Your task to perform on an android device: change your default location settings in chrome Image 0: 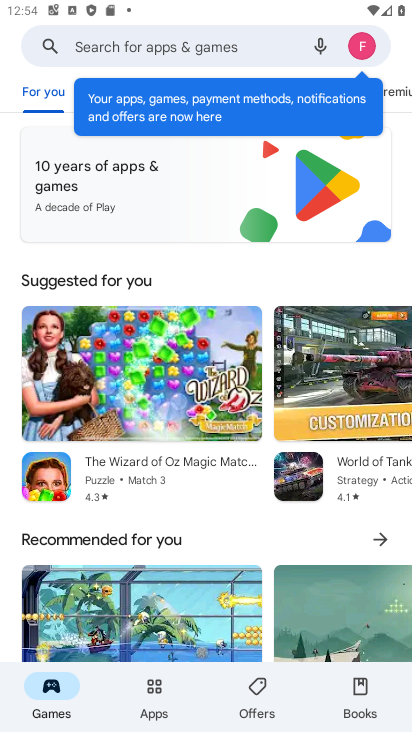
Step 0: press home button
Your task to perform on an android device: change your default location settings in chrome Image 1: 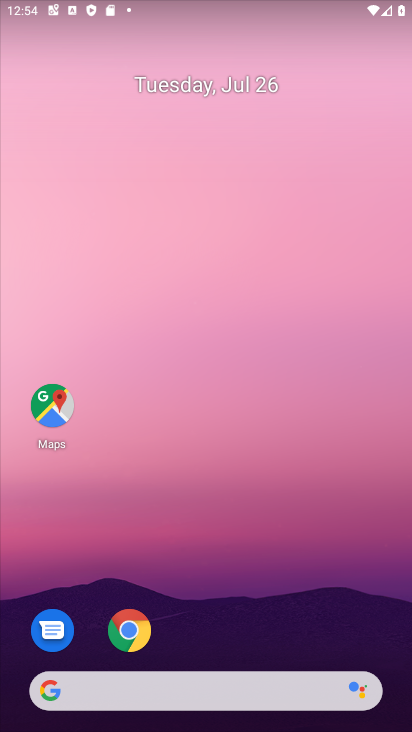
Step 1: click (132, 635)
Your task to perform on an android device: change your default location settings in chrome Image 2: 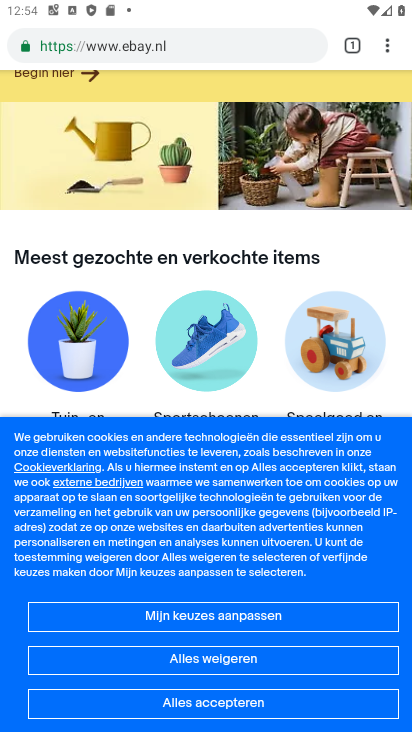
Step 2: click (385, 50)
Your task to perform on an android device: change your default location settings in chrome Image 3: 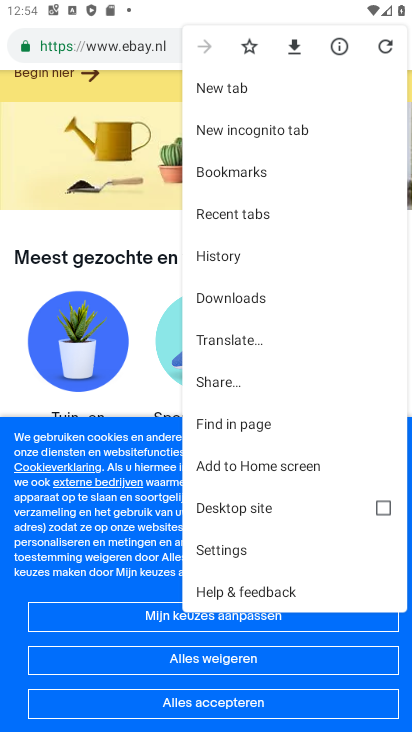
Step 3: click (214, 552)
Your task to perform on an android device: change your default location settings in chrome Image 4: 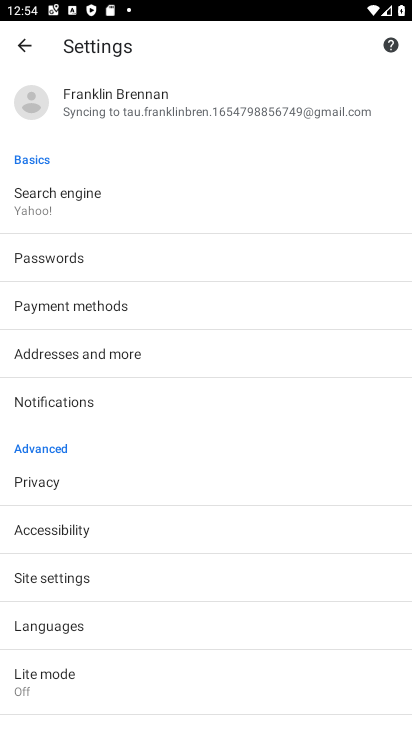
Step 4: click (49, 572)
Your task to perform on an android device: change your default location settings in chrome Image 5: 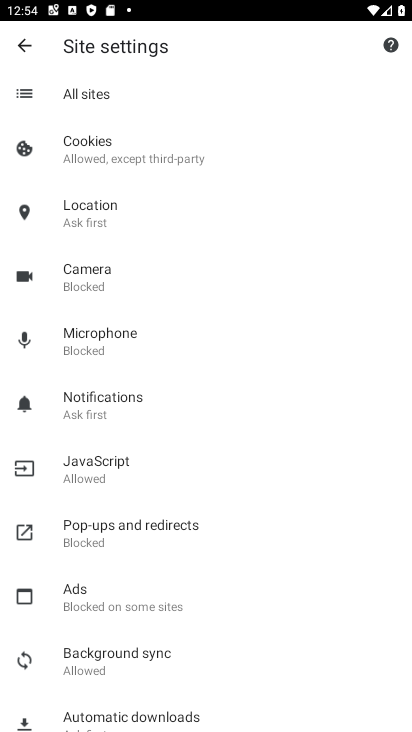
Step 5: click (83, 193)
Your task to perform on an android device: change your default location settings in chrome Image 6: 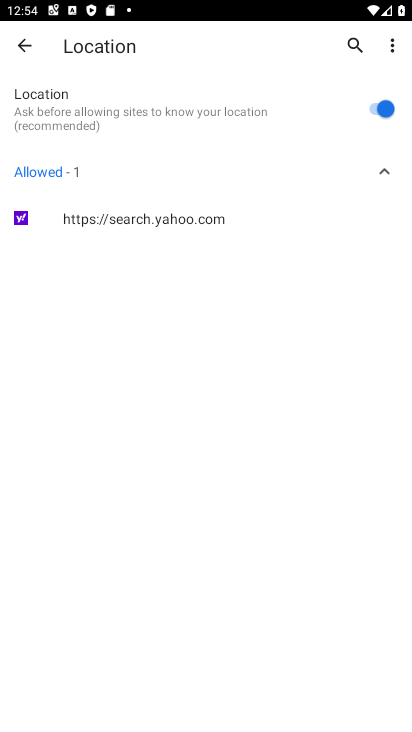
Step 6: click (371, 111)
Your task to perform on an android device: change your default location settings in chrome Image 7: 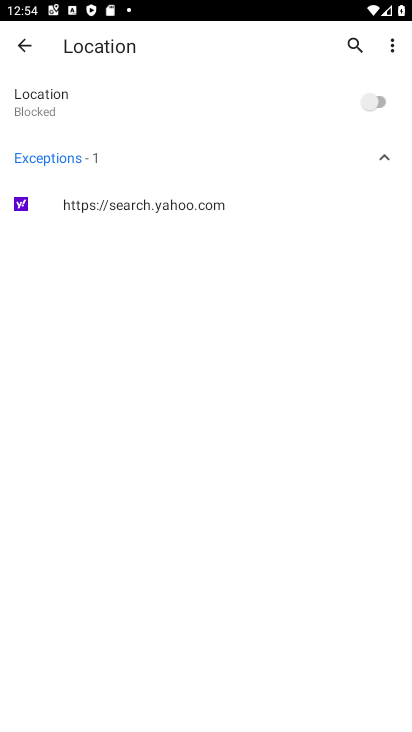
Step 7: task complete